Your task to perform on an android device: turn off notifications in google photos Image 0: 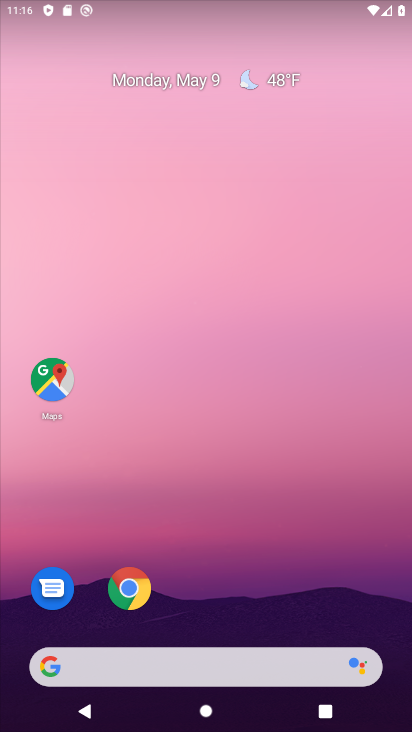
Step 0: drag from (225, 613) to (235, 278)
Your task to perform on an android device: turn off notifications in google photos Image 1: 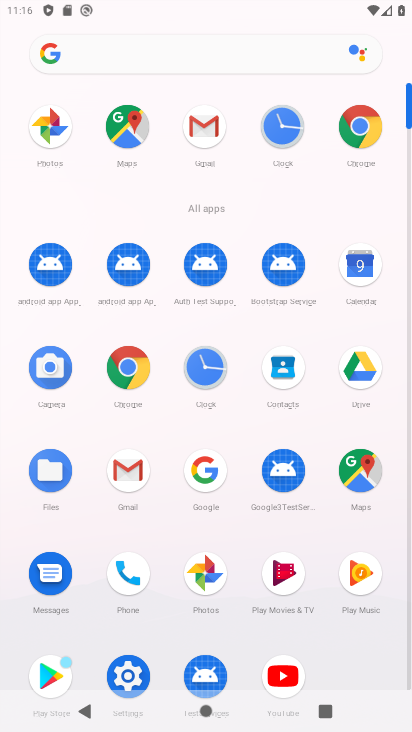
Step 1: click (194, 571)
Your task to perform on an android device: turn off notifications in google photos Image 2: 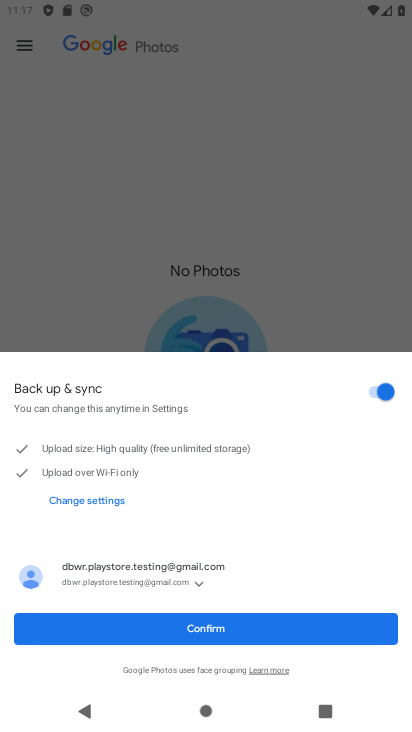
Step 2: click (251, 630)
Your task to perform on an android device: turn off notifications in google photos Image 3: 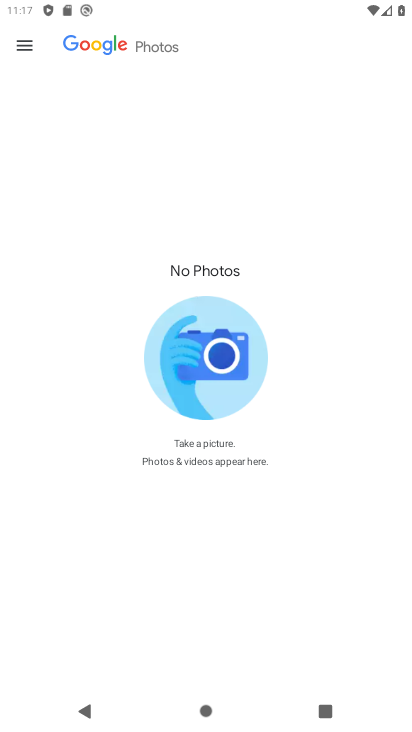
Step 3: click (27, 50)
Your task to perform on an android device: turn off notifications in google photos Image 4: 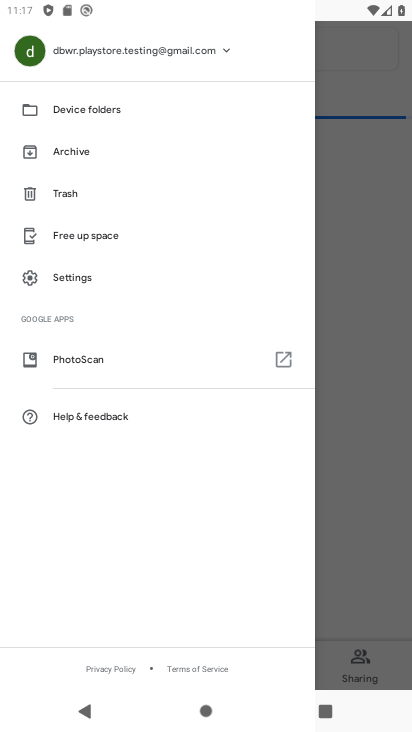
Step 4: click (90, 272)
Your task to perform on an android device: turn off notifications in google photos Image 5: 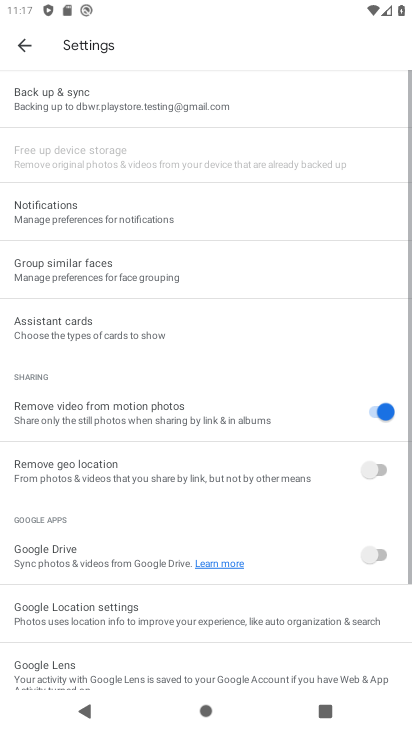
Step 5: drag from (159, 634) to (235, 562)
Your task to perform on an android device: turn off notifications in google photos Image 6: 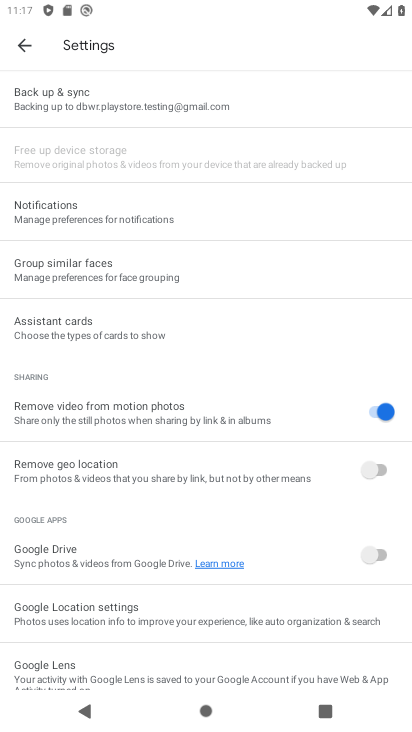
Step 6: click (105, 202)
Your task to perform on an android device: turn off notifications in google photos Image 7: 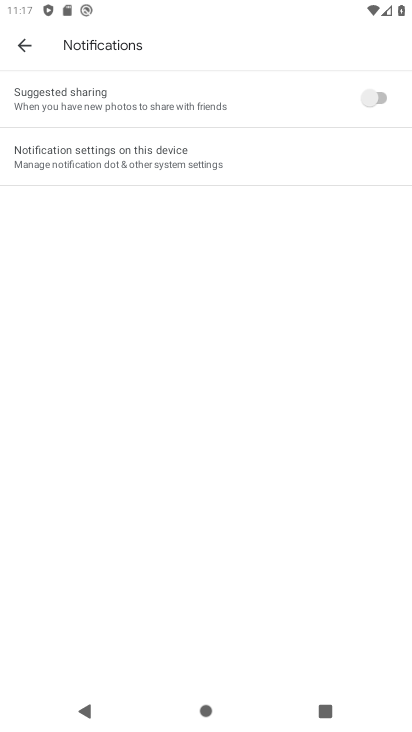
Step 7: click (116, 159)
Your task to perform on an android device: turn off notifications in google photos Image 8: 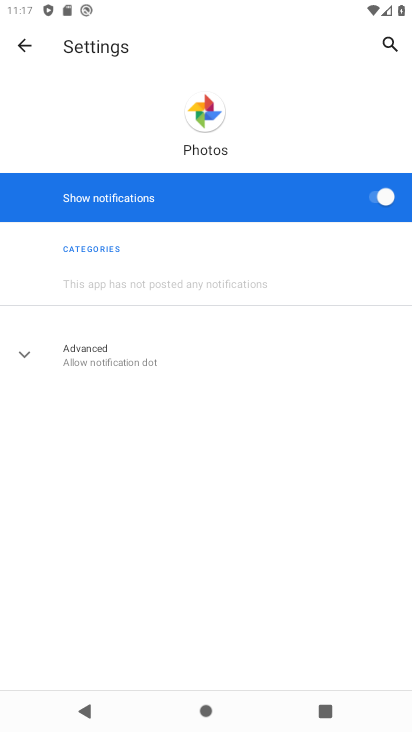
Step 8: click (372, 195)
Your task to perform on an android device: turn off notifications in google photos Image 9: 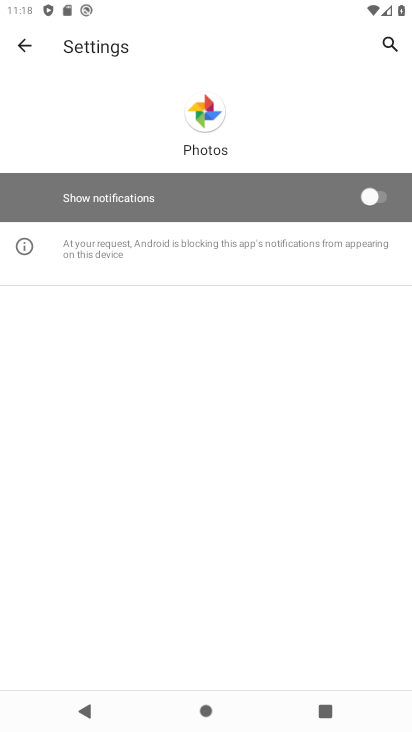
Step 9: task complete